Your task to perform on an android device: Is it going to rain tomorrow? Image 0: 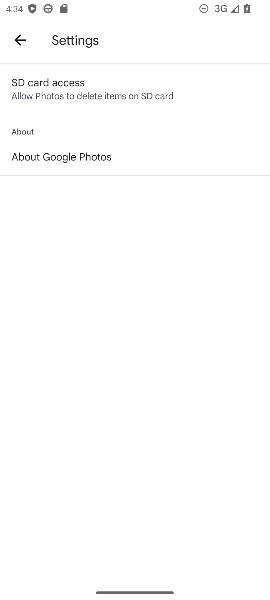
Step 0: press home button
Your task to perform on an android device: Is it going to rain tomorrow? Image 1: 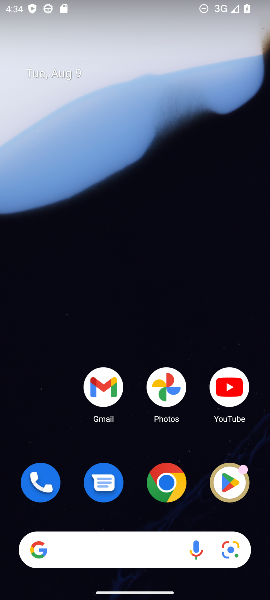
Step 1: drag from (143, 444) to (125, 67)
Your task to perform on an android device: Is it going to rain tomorrow? Image 2: 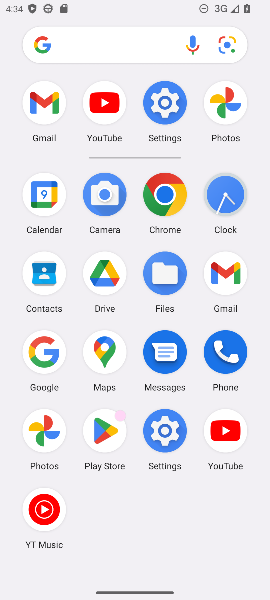
Step 2: click (53, 356)
Your task to perform on an android device: Is it going to rain tomorrow? Image 3: 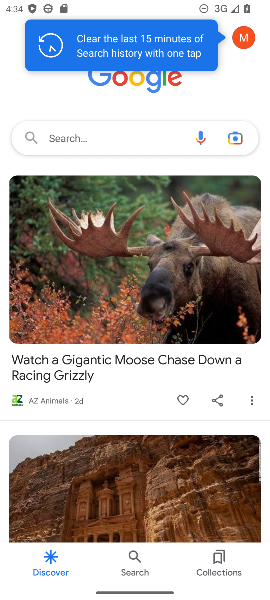
Step 3: click (109, 134)
Your task to perform on an android device: Is it going to rain tomorrow? Image 4: 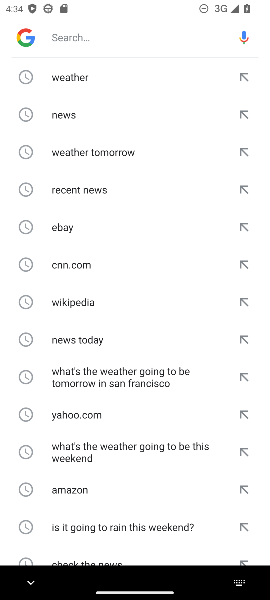
Step 4: click (65, 80)
Your task to perform on an android device: Is it going to rain tomorrow? Image 5: 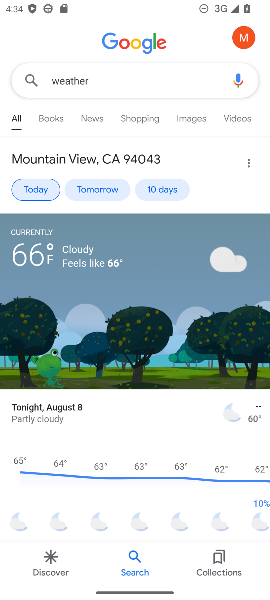
Step 5: click (112, 182)
Your task to perform on an android device: Is it going to rain tomorrow? Image 6: 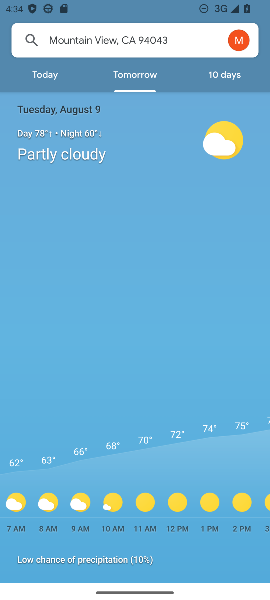
Step 6: task complete